Your task to perform on an android device: What is the recent news? Image 0: 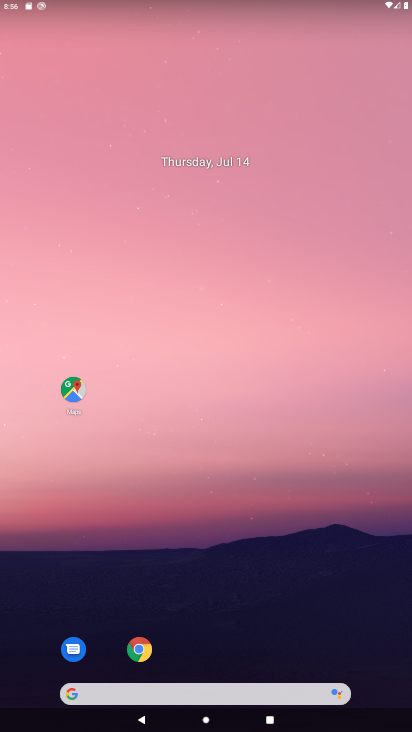
Step 0: drag from (189, 450) to (234, 19)
Your task to perform on an android device: What is the recent news? Image 1: 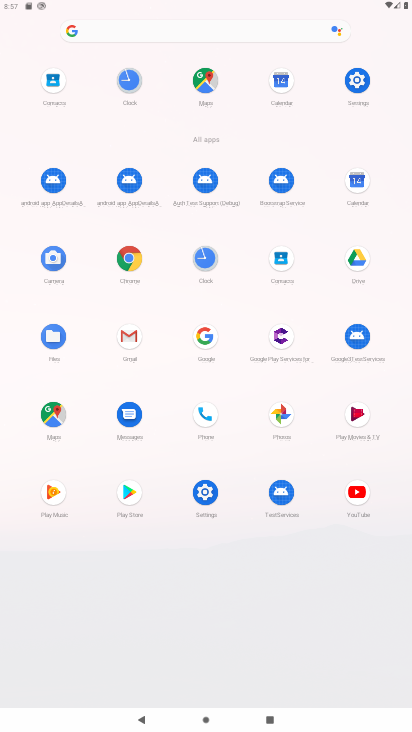
Step 1: click (162, 31)
Your task to perform on an android device: What is the recent news? Image 2: 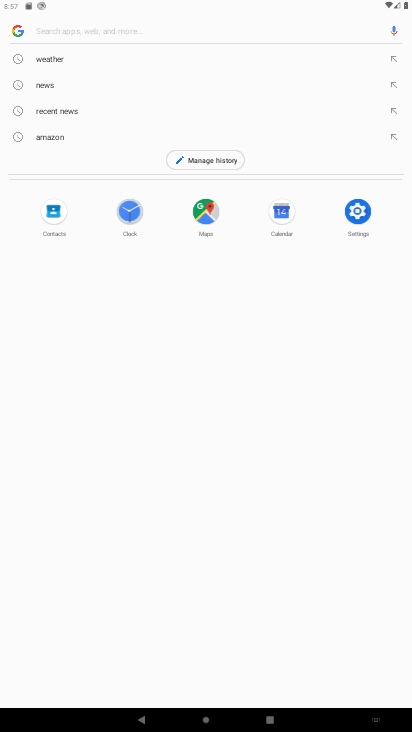
Step 2: click (88, 114)
Your task to perform on an android device: What is the recent news? Image 3: 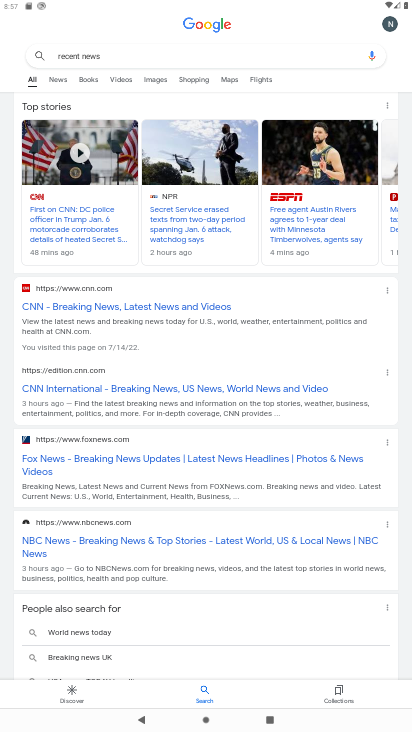
Step 3: task complete